Your task to perform on an android device: What's on my calendar tomorrow? Image 0: 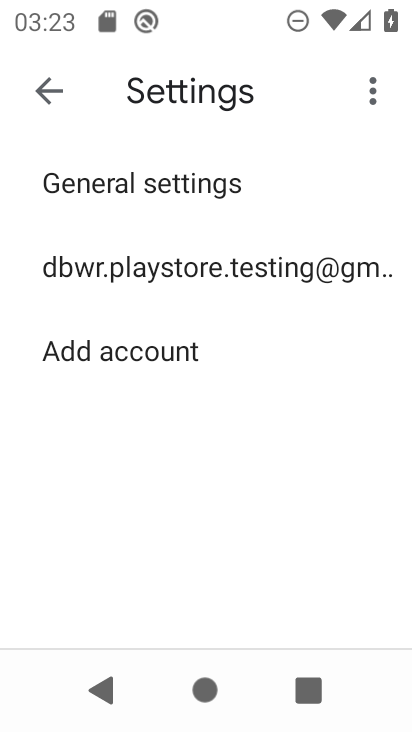
Step 0: press home button
Your task to perform on an android device: What's on my calendar tomorrow? Image 1: 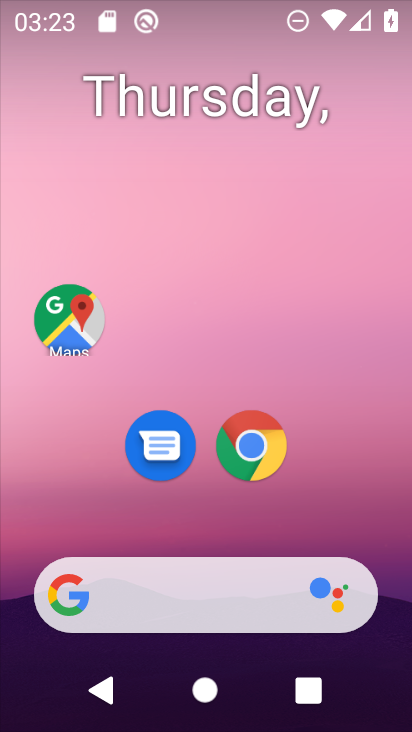
Step 1: drag from (352, 548) to (337, 2)
Your task to perform on an android device: What's on my calendar tomorrow? Image 2: 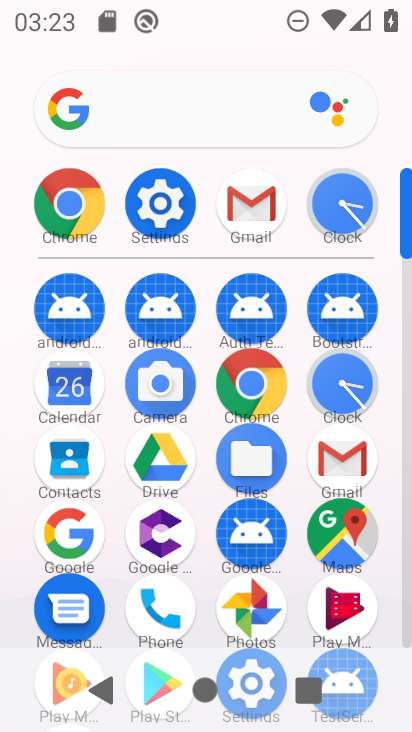
Step 2: click (60, 388)
Your task to perform on an android device: What's on my calendar tomorrow? Image 3: 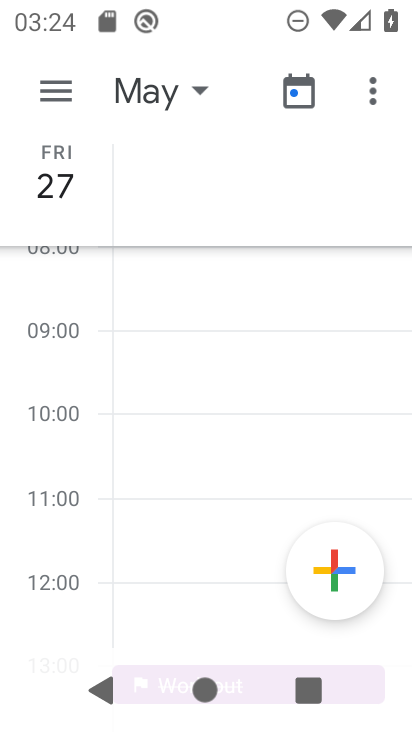
Step 3: click (201, 92)
Your task to perform on an android device: What's on my calendar tomorrow? Image 4: 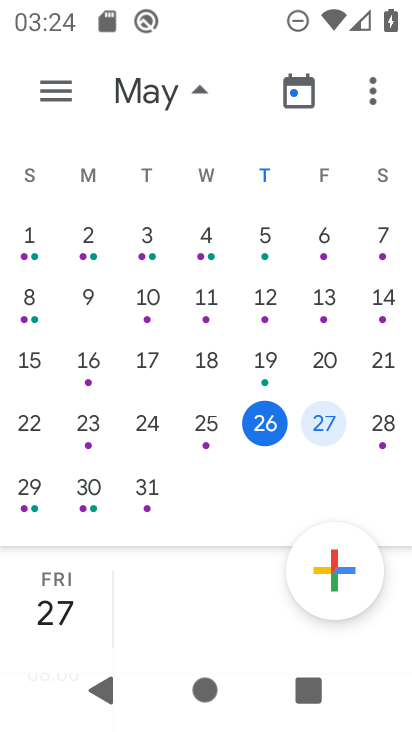
Step 4: click (322, 427)
Your task to perform on an android device: What's on my calendar tomorrow? Image 5: 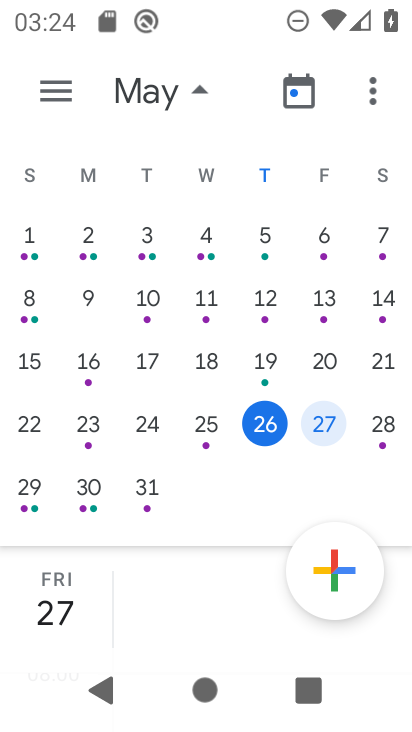
Step 5: task complete